Your task to perform on an android device: What's the weather going to be this weekend? Image 0: 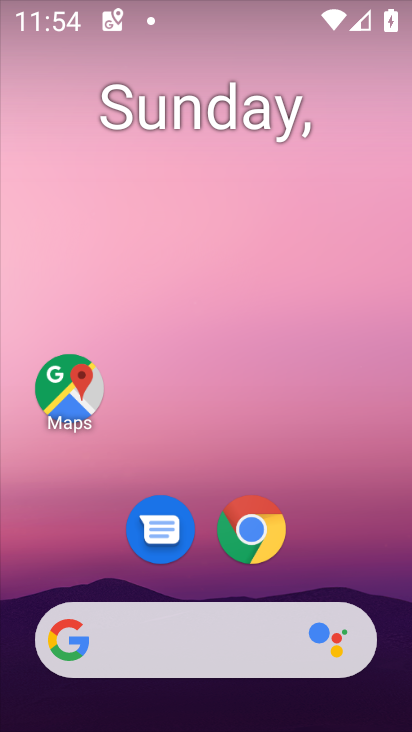
Step 0: click (232, 633)
Your task to perform on an android device: What's the weather going to be this weekend? Image 1: 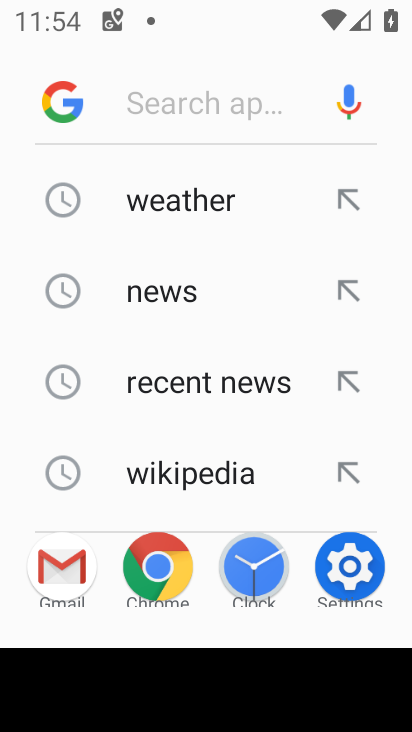
Step 1: click (230, 205)
Your task to perform on an android device: What's the weather going to be this weekend? Image 2: 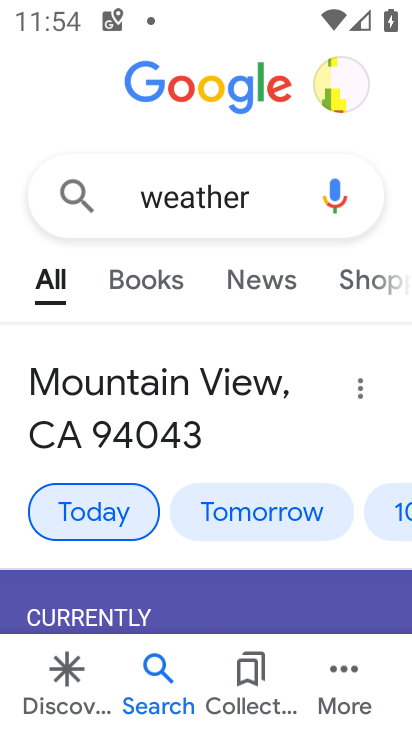
Step 2: click (390, 503)
Your task to perform on an android device: What's the weather going to be this weekend? Image 3: 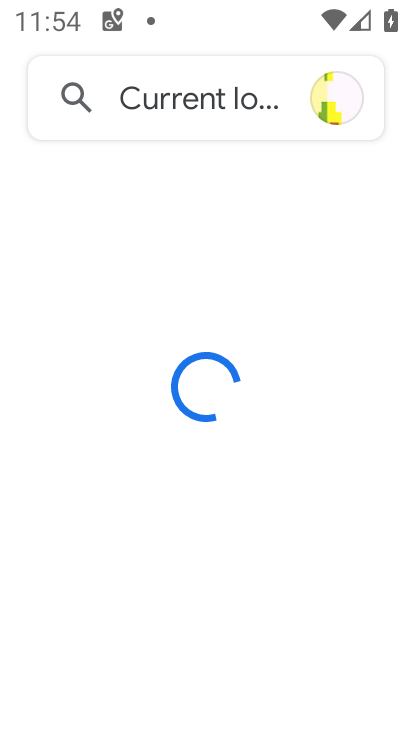
Step 3: click (390, 503)
Your task to perform on an android device: What's the weather going to be this weekend? Image 4: 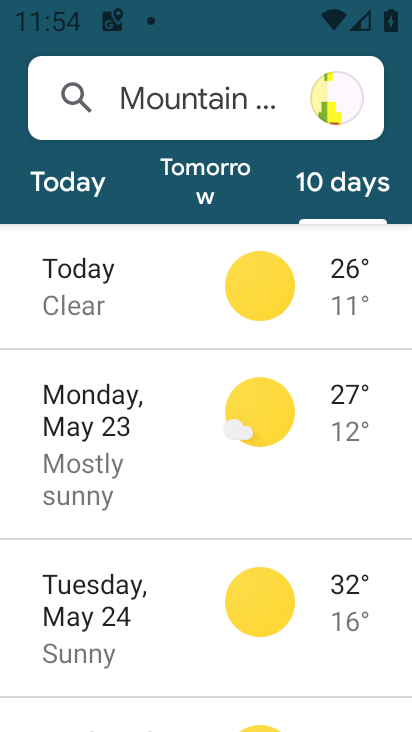
Step 4: task complete